Your task to perform on an android device: change the clock display to analog Image 0: 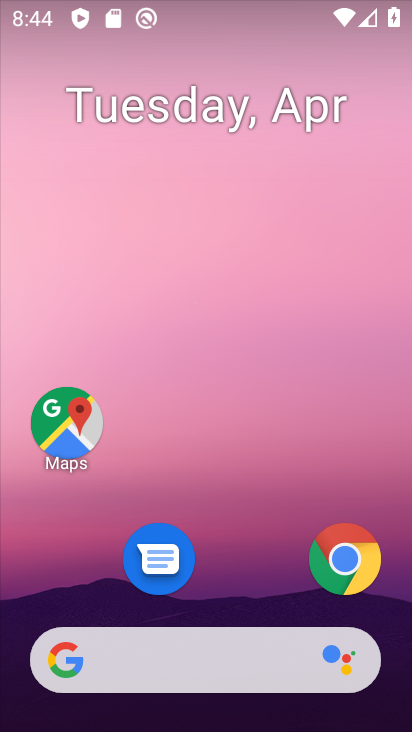
Step 0: drag from (287, 690) to (255, 152)
Your task to perform on an android device: change the clock display to analog Image 1: 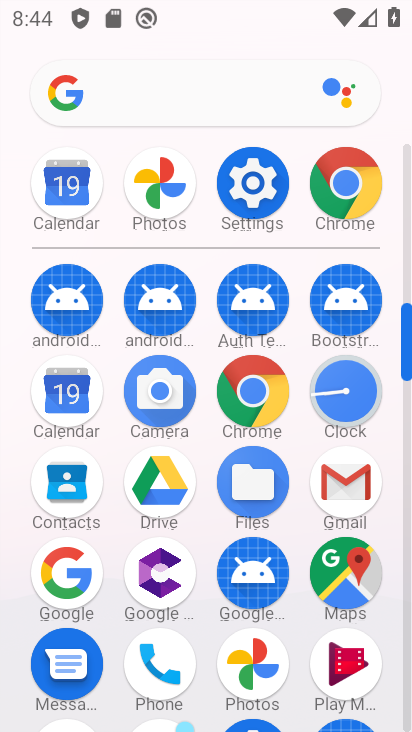
Step 1: click (251, 181)
Your task to perform on an android device: change the clock display to analog Image 2: 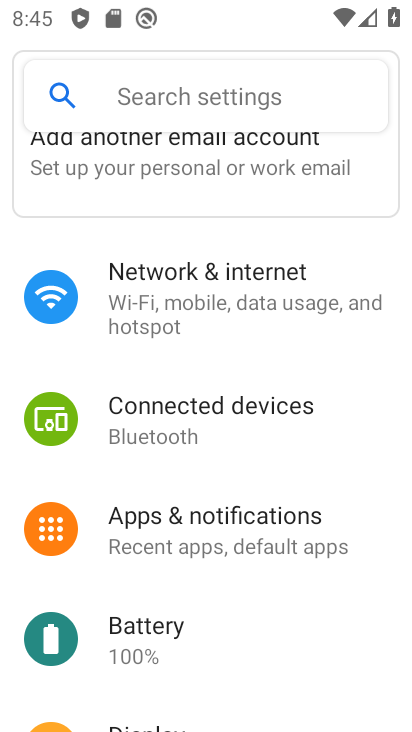
Step 2: press home button
Your task to perform on an android device: change the clock display to analog Image 3: 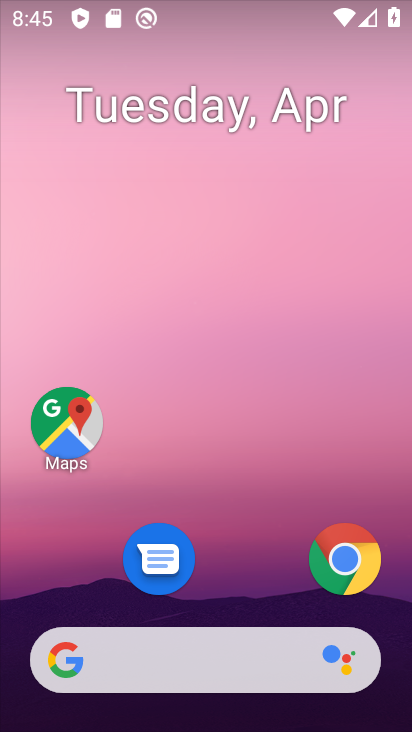
Step 3: drag from (239, 695) to (241, 37)
Your task to perform on an android device: change the clock display to analog Image 4: 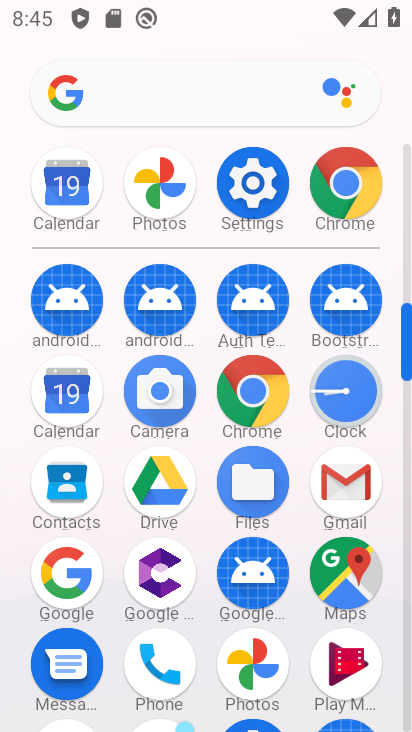
Step 4: click (336, 381)
Your task to perform on an android device: change the clock display to analog Image 5: 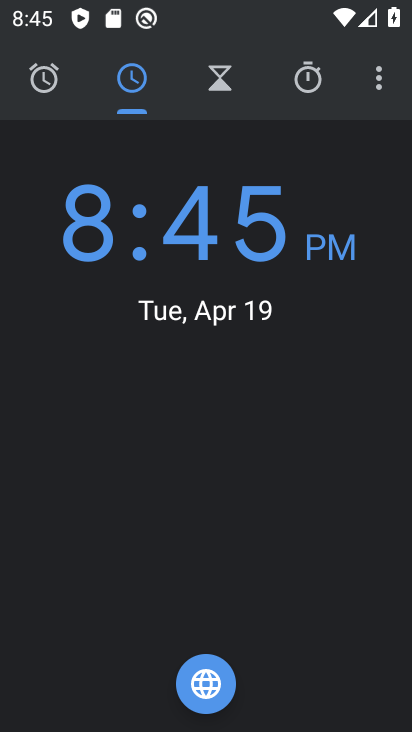
Step 5: click (375, 93)
Your task to perform on an android device: change the clock display to analog Image 6: 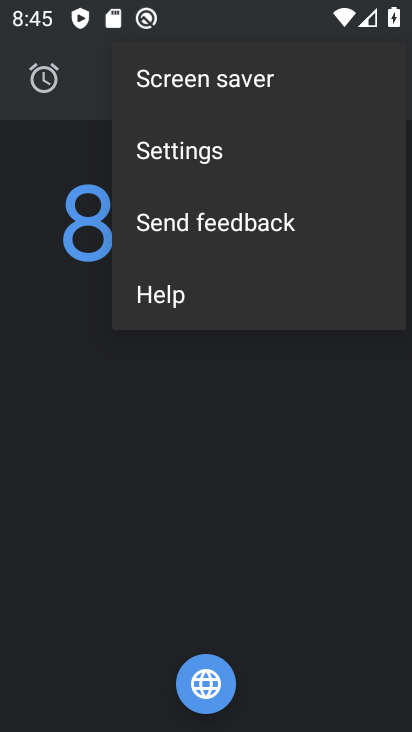
Step 6: click (260, 158)
Your task to perform on an android device: change the clock display to analog Image 7: 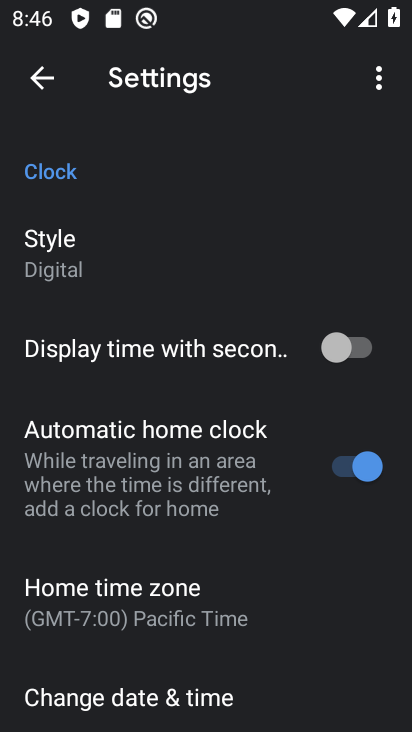
Step 7: click (113, 266)
Your task to perform on an android device: change the clock display to analog Image 8: 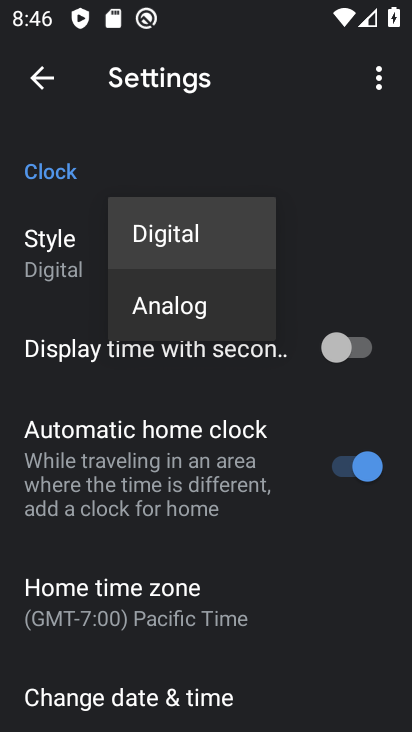
Step 8: click (113, 266)
Your task to perform on an android device: change the clock display to analog Image 9: 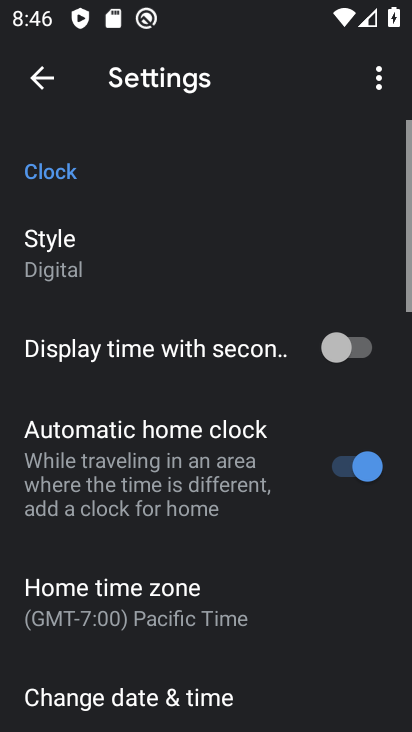
Step 9: click (92, 243)
Your task to perform on an android device: change the clock display to analog Image 10: 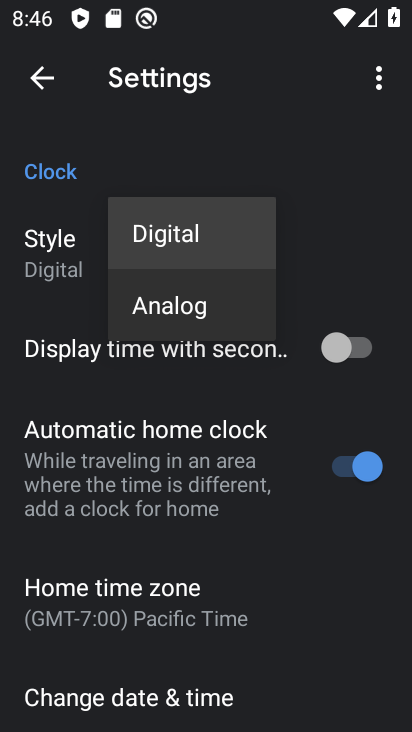
Step 10: click (159, 304)
Your task to perform on an android device: change the clock display to analog Image 11: 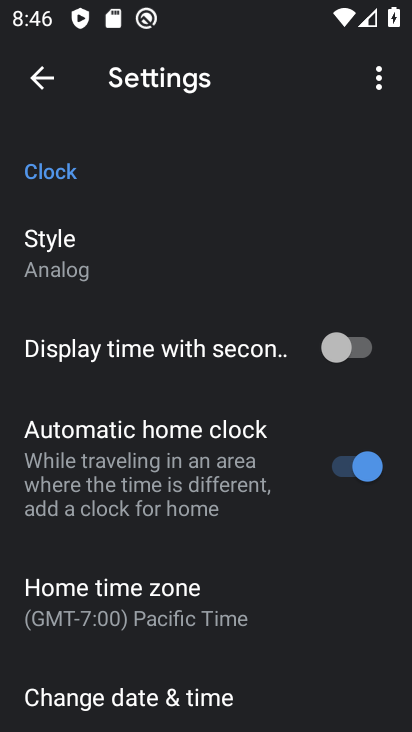
Step 11: task complete